Your task to perform on an android device: Open the calendar app, open the side menu, and click the "Day" option Image 0: 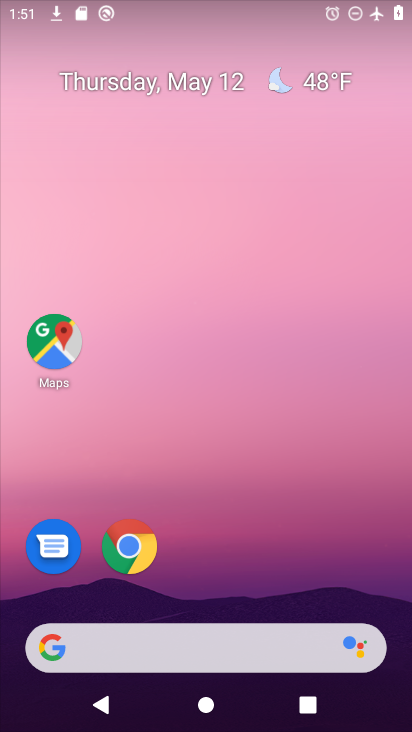
Step 0: drag from (179, 632) to (292, 186)
Your task to perform on an android device: Open the calendar app, open the side menu, and click the "Day" option Image 1: 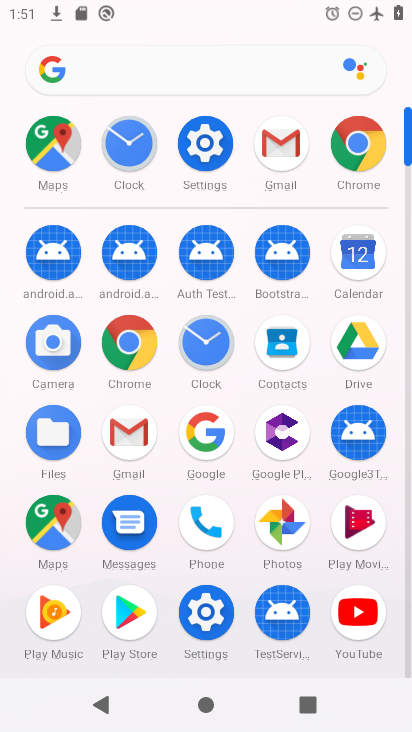
Step 1: click (364, 261)
Your task to perform on an android device: Open the calendar app, open the side menu, and click the "Day" option Image 2: 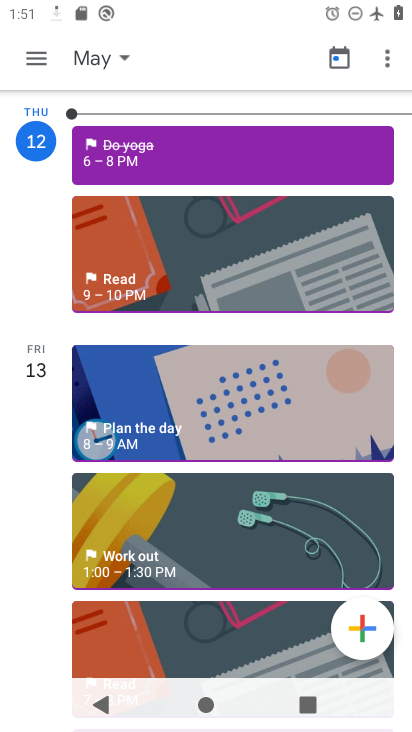
Step 2: click (37, 61)
Your task to perform on an android device: Open the calendar app, open the side menu, and click the "Day" option Image 3: 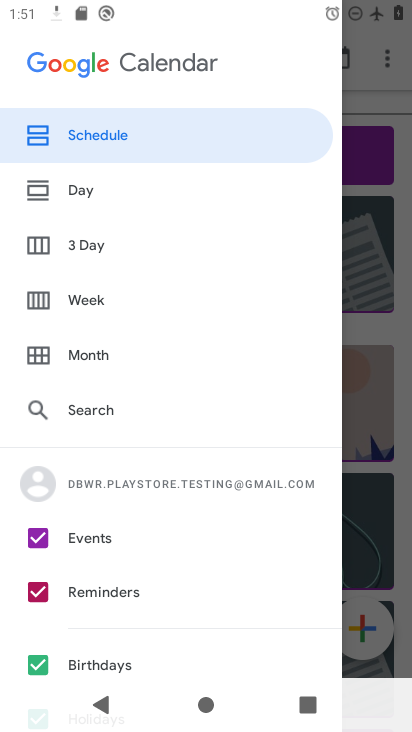
Step 3: click (84, 185)
Your task to perform on an android device: Open the calendar app, open the side menu, and click the "Day" option Image 4: 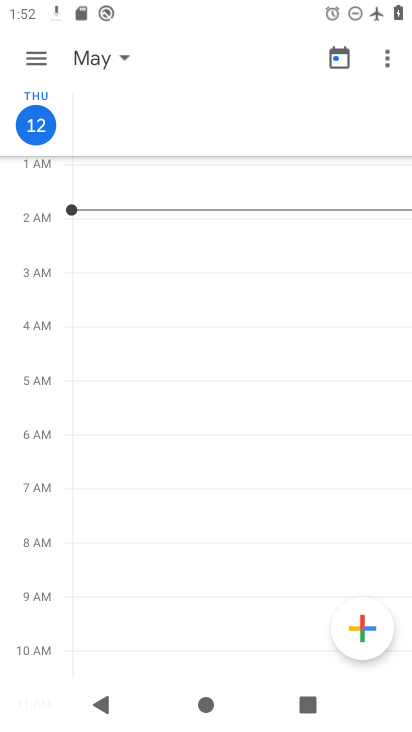
Step 4: task complete